Your task to perform on an android device: open app "Spotify" (install if not already installed) Image 0: 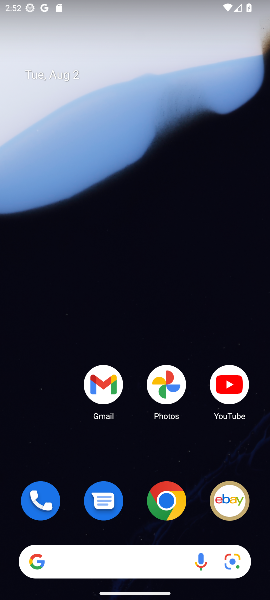
Step 0: drag from (155, 450) to (185, 8)
Your task to perform on an android device: open app "Spotify" (install if not already installed) Image 1: 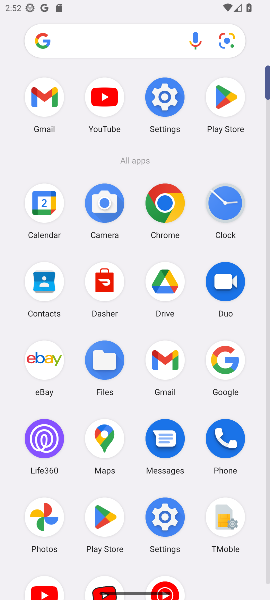
Step 1: click (221, 96)
Your task to perform on an android device: open app "Spotify" (install if not already installed) Image 2: 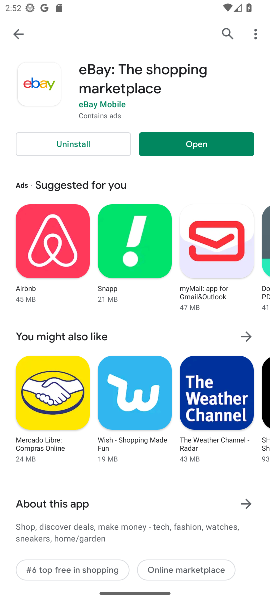
Step 2: click (221, 32)
Your task to perform on an android device: open app "Spotify" (install if not already installed) Image 3: 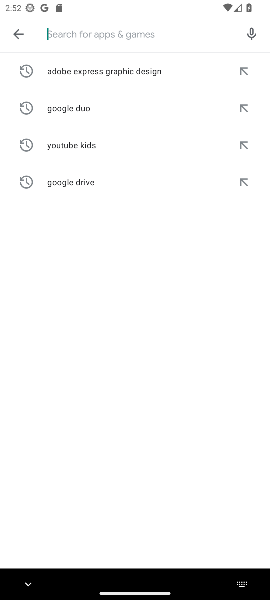
Step 3: type "Spotify"
Your task to perform on an android device: open app "Spotify" (install if not already installed) Image 4: 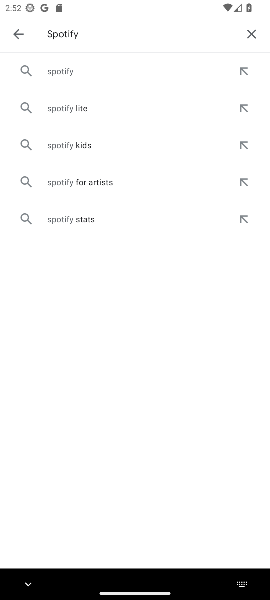
Step 4: click (58, 76)
Your task to perform on an android device: open app "Spotify" (install if not already installed) Image 5: 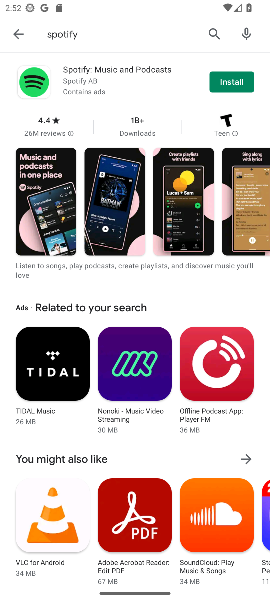
Step 5: click (227, 86)
Your task to perform on an android device: open app "Spotify" (install if not already installed) Image 6: 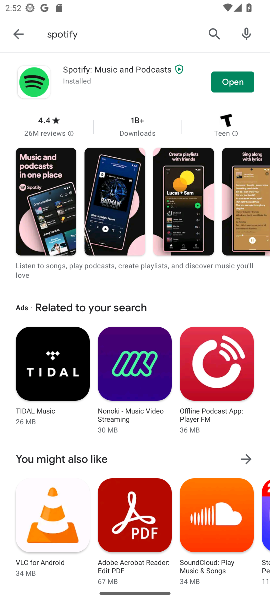
Step 6: click (227, 87)
Your task to perform on an android device: open app "Spotify" (install if not already installed) Image 7: 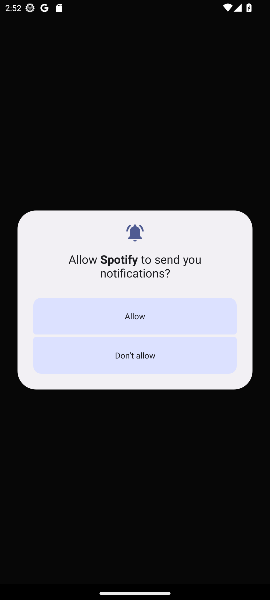
Step 7: task complete